Your task to perform on an android device: change alarm snooze length Image 0: 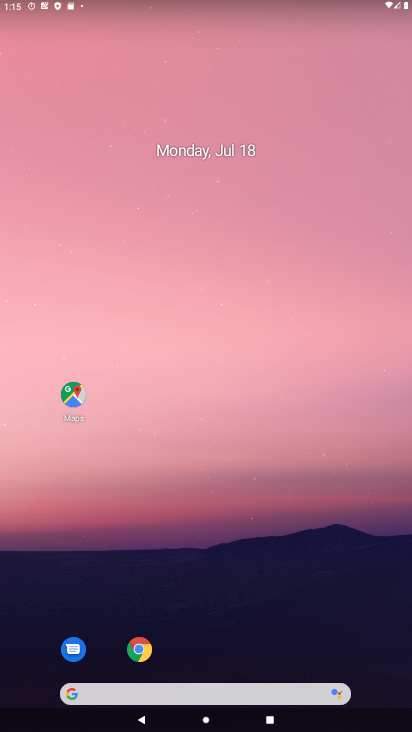
Step 0: drag from (208, 648) to (135, 52)
Your task to perform on an android device: change alarm snooze length Image 1: 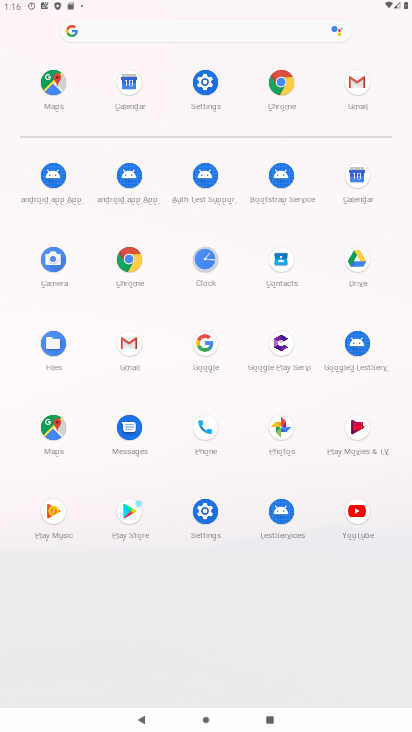
Step 1: click (206, 263)
Your task to perform on an android device: change alarm snooze length Image 2: 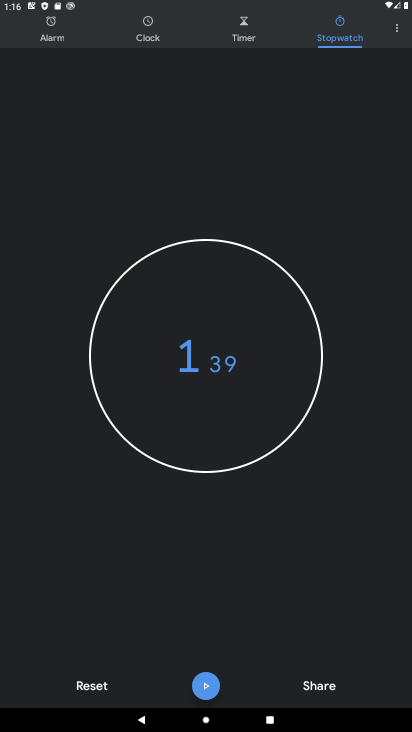
Step 2: drag from (398, 28) to (340, 104)
Your task to perform on an android device: change alarm snooze length Image 3: 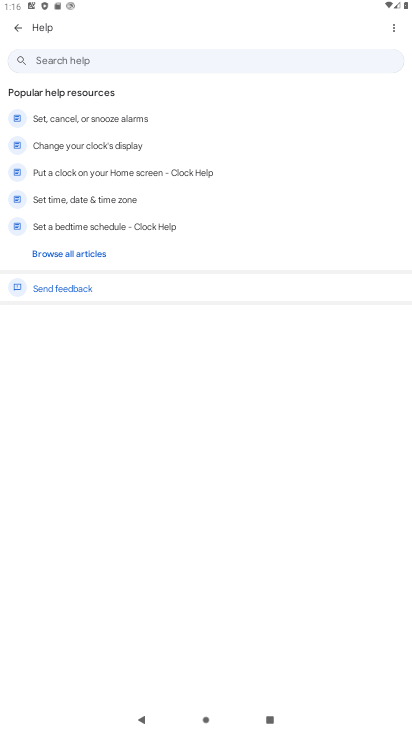
Step 3: press back button
Your task to perform on an android device: change alarm snooze length Image 4: 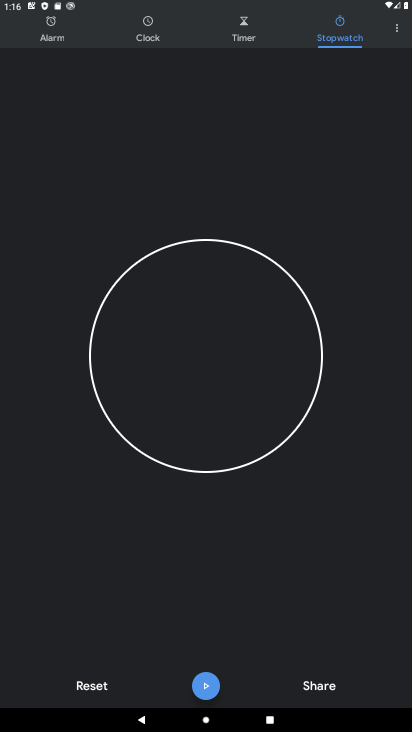
Step 4: click (400, 32)
Your task to perform on an android device: change alarm snooze length Image 5: 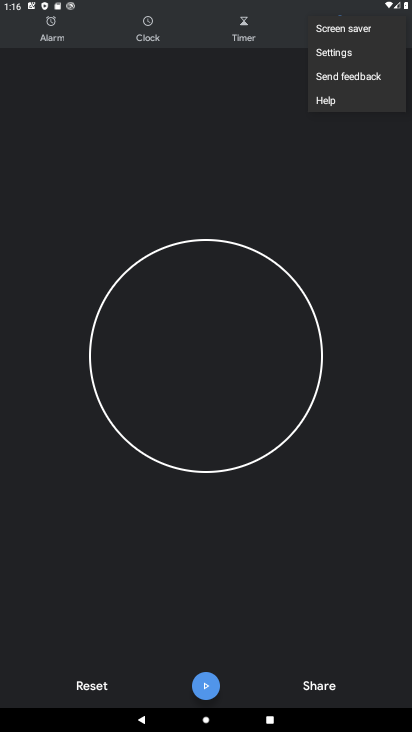
Step 5: click (339, 57)
Your task to perform on an android device: change alarm snooze length Image 6: 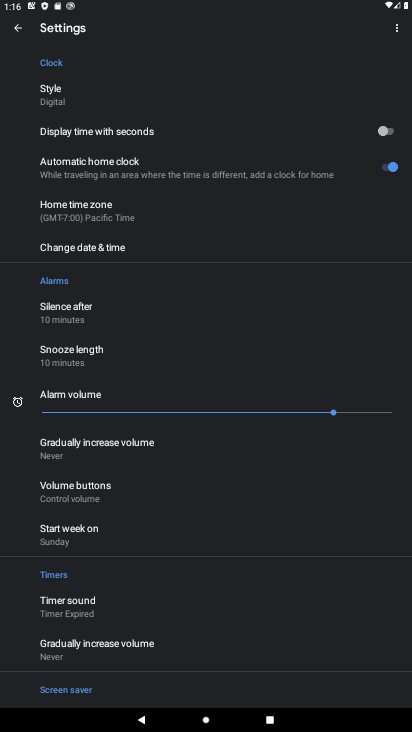
Step 6: click (46, 344)
Your task to perform on an android device: change alarm snooze length Image 7: 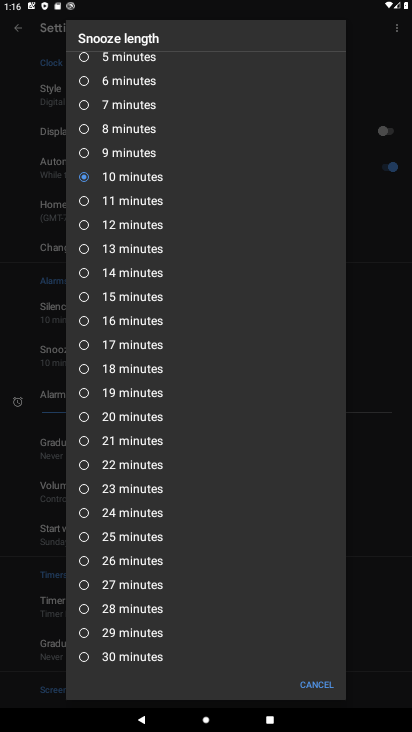
Step 7: click (92, 200)
Your task to perform on an android device: change alarm snooze length Image 8: 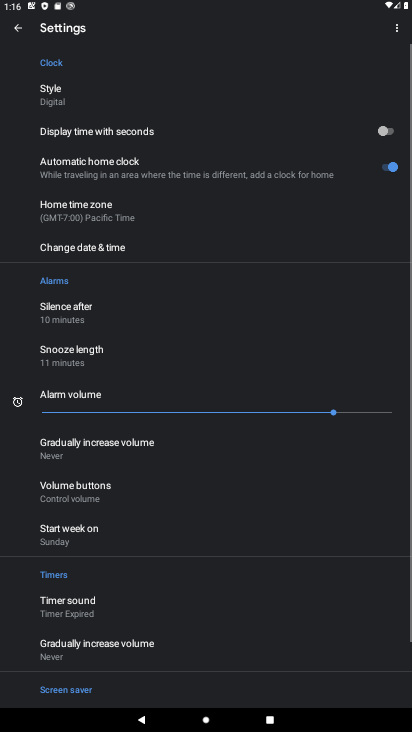
Step 8: task complete